Your task to perform on an android device: Search for Mexican restaurants on Maps Image 0: 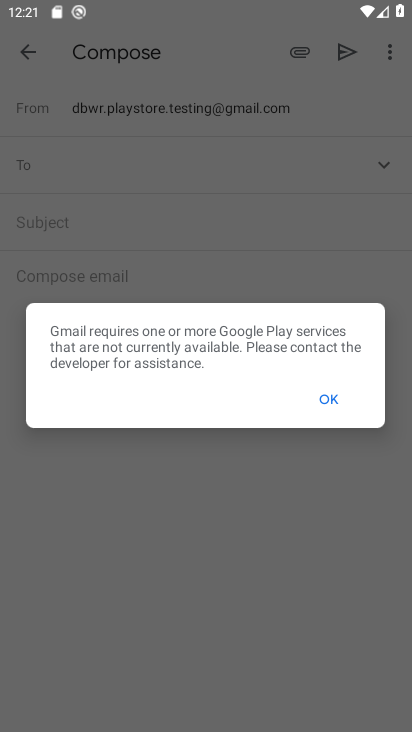
Step 0: press home button
Your task to perform on an android device: Search for Mexican restaurants on Maps Image 1: 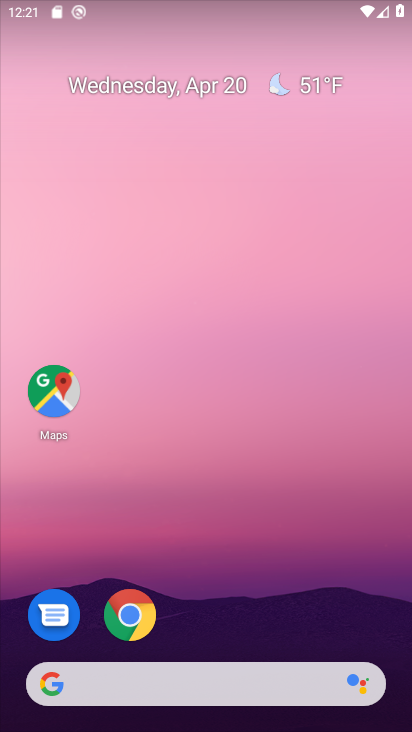
Step 1: click (44, 385)
Your task to perform on an android device: Search for Mexican restaurants on Maps Image 2: 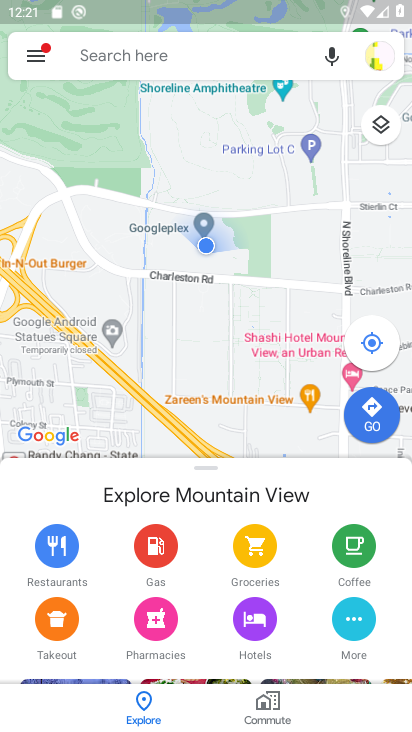
Step 2: click (143, 39)
Your task to perform on an android device: Search for Mexican restaurants on Maps Image 3: 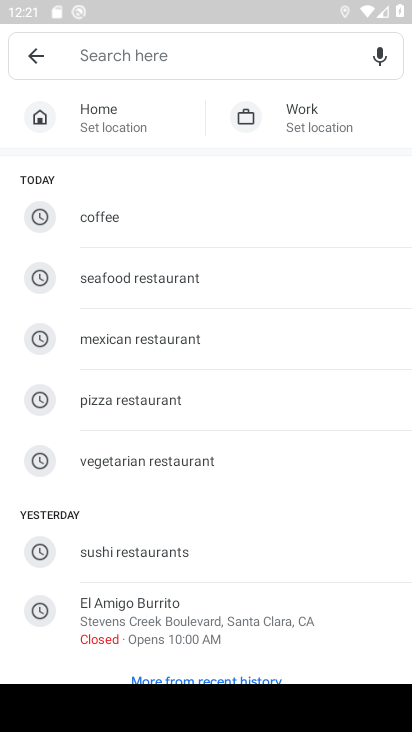
Step 3: click (172, 335)
Your task to perform on an android device: Search for Mexican restaurants on Maps Image 4: 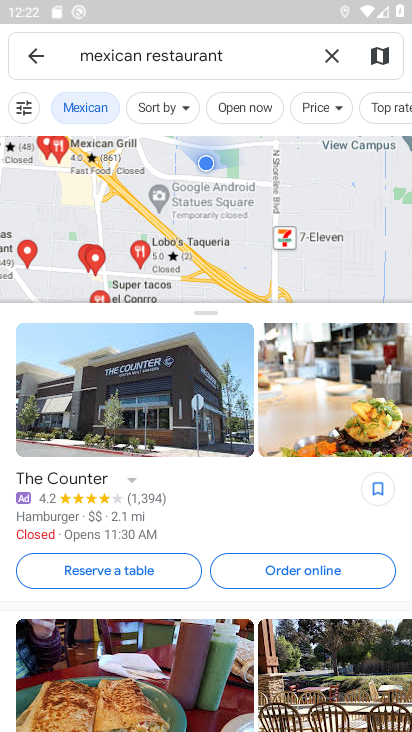
Step 4: task complete